Your task to perform on an android device: Search for Italian restaurants on Maps Image 0: 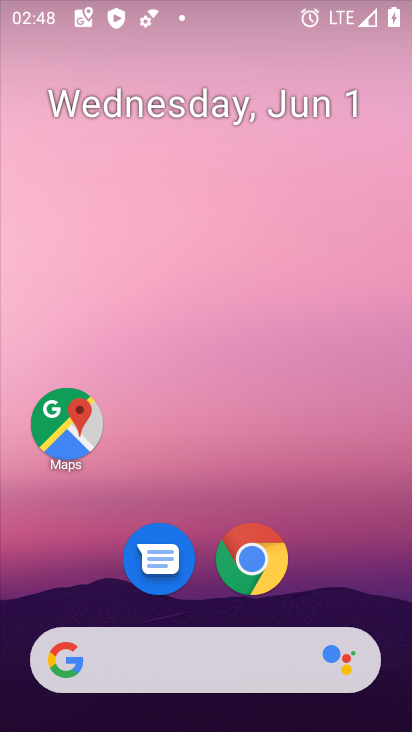
Step 0: press home button
Your task to perform on an android device: Search for Italian restaurants on Maps Image 1: 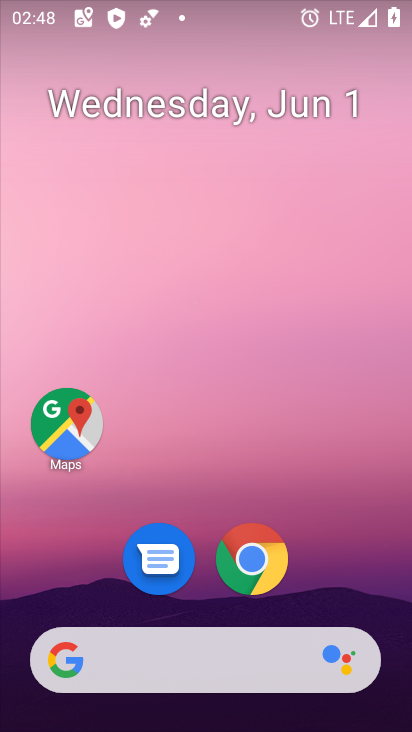
Step 1: click (47, 417)
Your task to perform on an android device: Search for Italian restaurants on Maps Image 2: 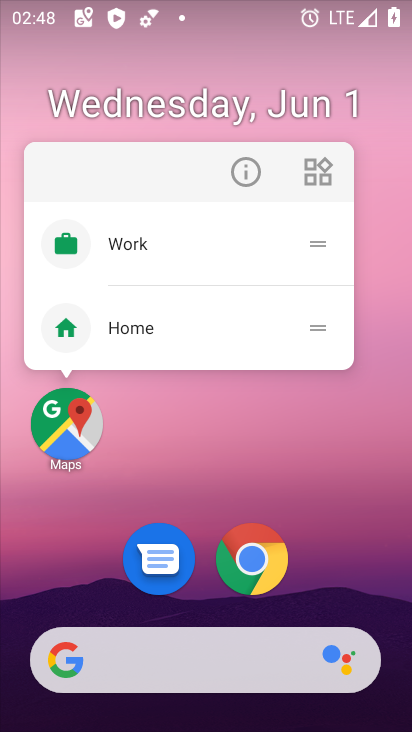
Step 2: click (47, 417)
Your task to perform on an android device: Search for Italian restaurants on Maps Image 3: 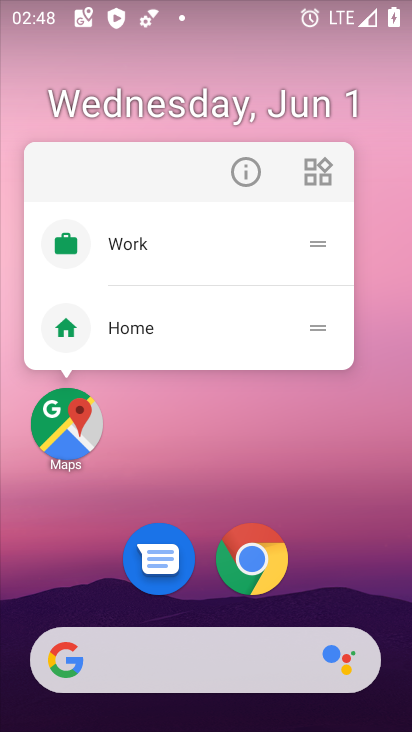
Step 3: click (46, 417)
Your task to perform on an android device: Search for Italian restaurants on Maps Image 4: 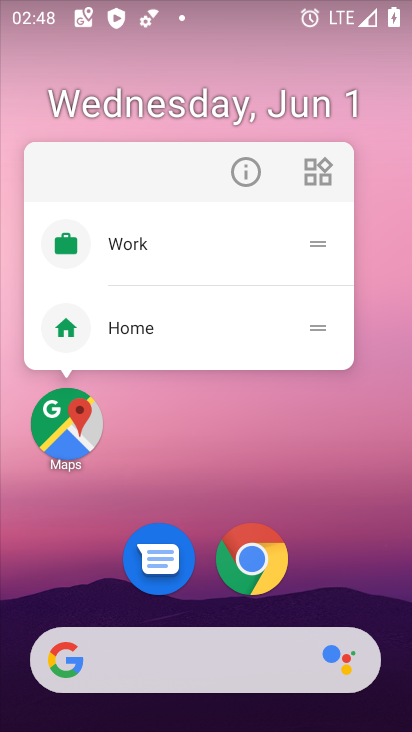
Step 4: click (241, 460)
Your task to perform on an android device: Search for Italian restaurants on Maps Image 5: 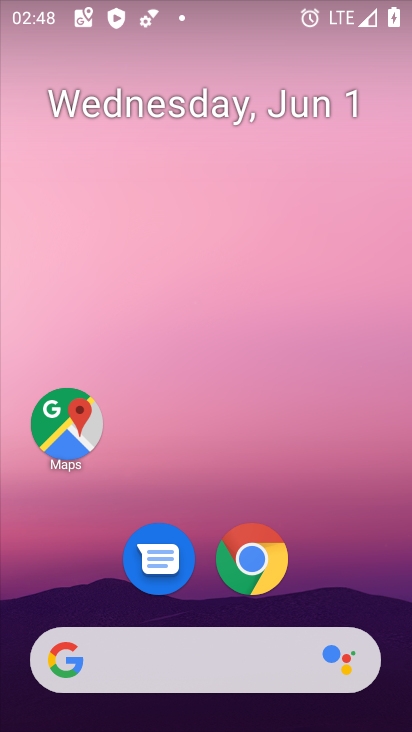
Step 5: click (73, 446)
Your task to perform on an android device: Search for Italian restaurants on Maps Image 6: 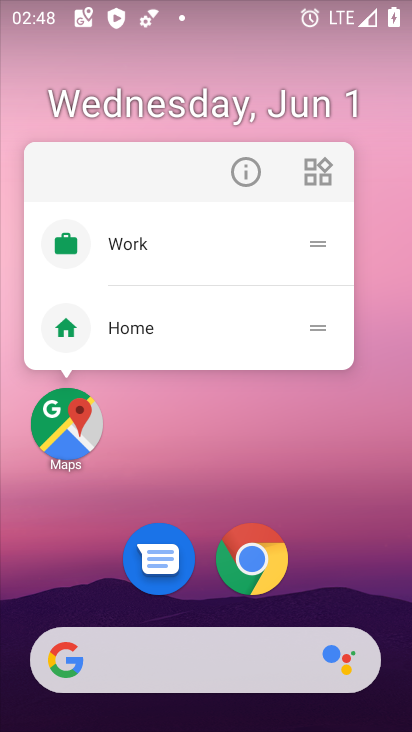
Step 6: click (230, 471)
Your task to perform on an android device: Search for Italian restaurants on Maps Image 7: 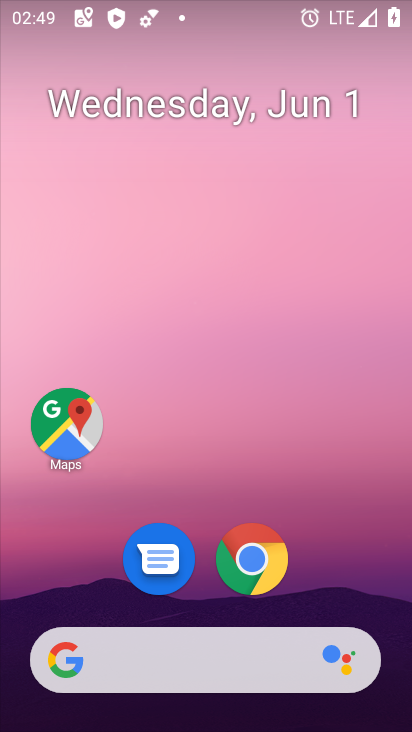
Step 7: drag from (359, 608) to (401, 246)
Your task to perform on an android device: Search for Italian restaurants on Maps Image 8: 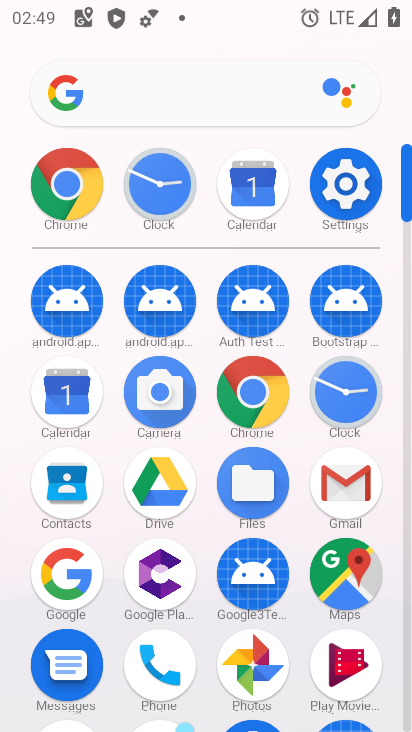
Step 8: click (350, 572)
Your task to perform on an android device: Search for Italian restaurants on Maps Image 9: 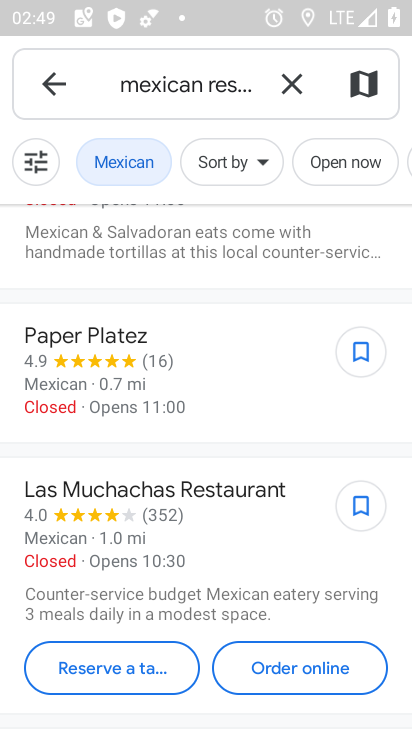
Step 9: click (292, 82)
Your task to perform on an android device: Search for Italian restaurants on Maps Image 10: 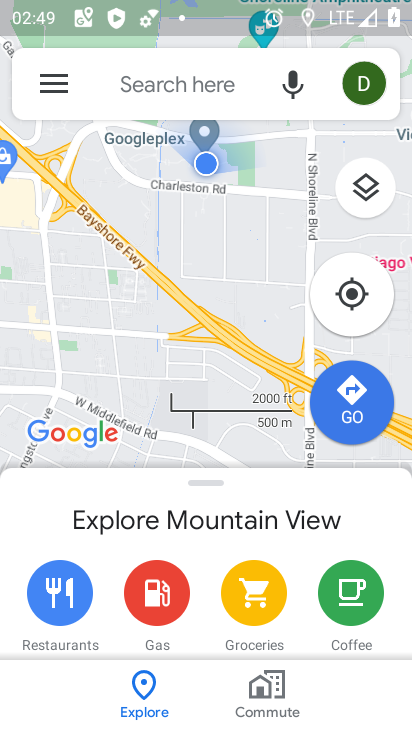
Step 10: click (198, 84)
Your task to perform on an android device: Search for Italian restaurants on Maps Image 11: 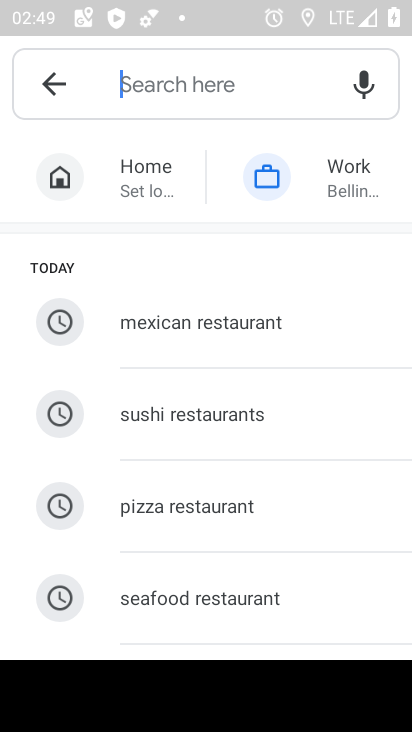
Step 11: type "Italian restaurants "
Your task to perform on an android device: Search for Italian restaurants on Maps Image 12: 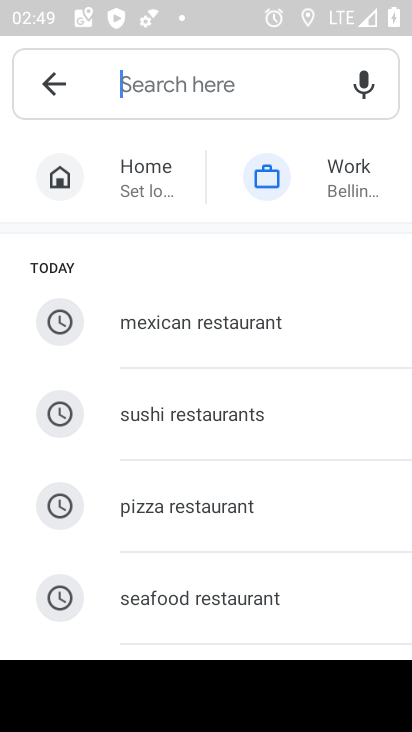
Step 12: click (206, 100)
Your task to perform on an android device: Search for Italian restaurants on Maps Image 13: 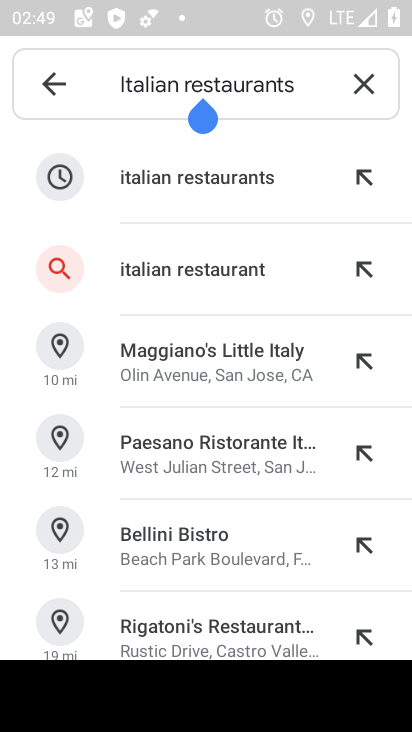
Step 13: click (172, 178)
Your task to perform on an android device: Search for Italian restaurants on Maps Image 14: 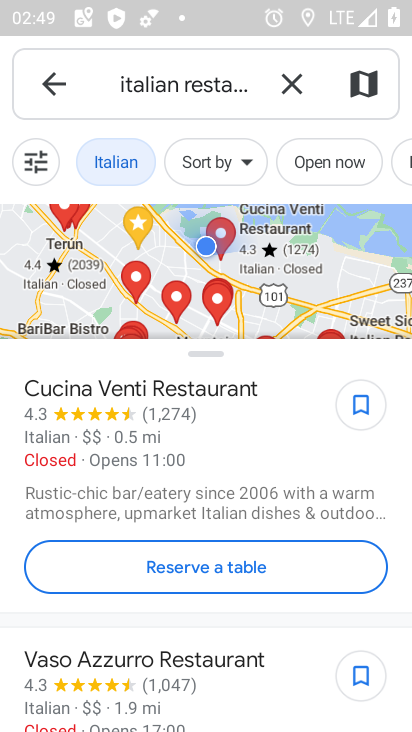
Step 14: task complete